Your task to perform on an android device: toggle show notifications on the lock screen Image 0: 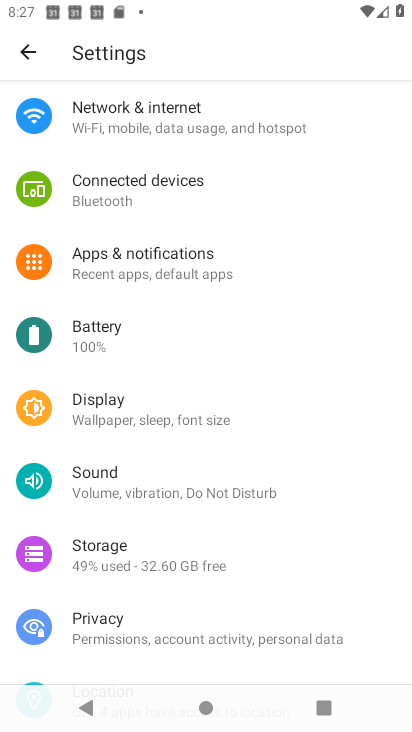
Step 0: click (169, 270)
Your task to perform on an android device: toggle show notifications on the lock screen Image 1: 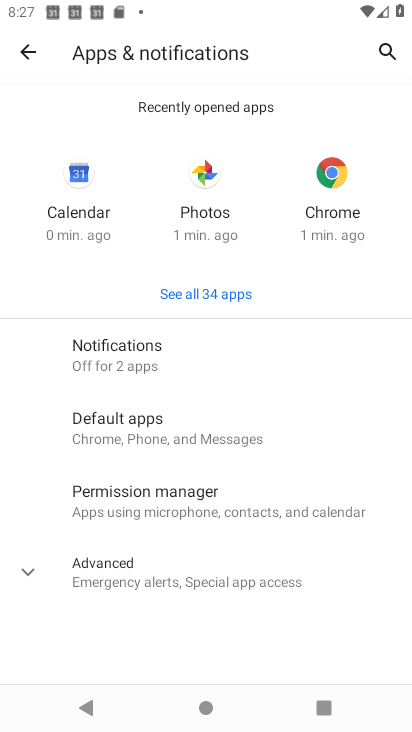
Step 1: click (143, 352)
Your task to perform on an android device: toggle show notifications on the lock screen Image 2: 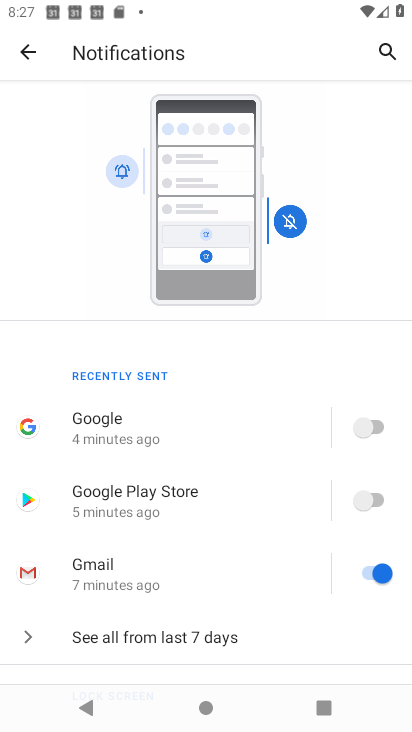
Step 2: drag from (245, 622) to (220, 275)
Your task to perform on an android device: toggle show notifications on the lock screen Image 3: 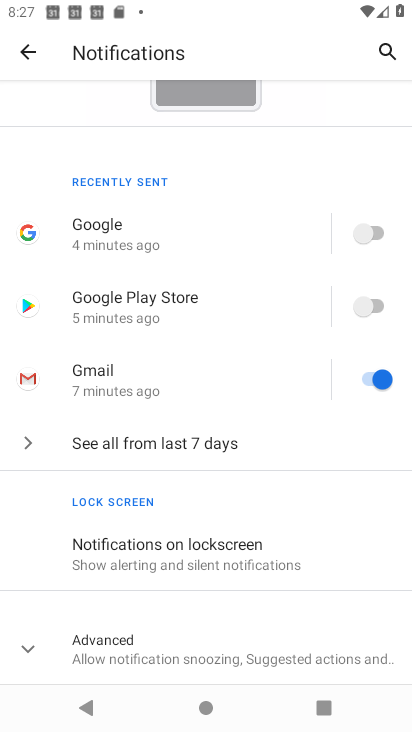
Step 3: click (213, 548)
Your task to perform on an android device: toggle show notifications on the lock screen Image 4: 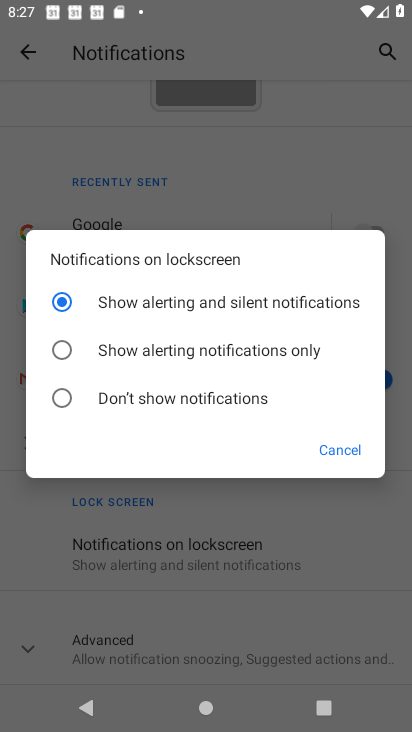
Step 4: click (165, 358)
Your task to perform on an android device: toggle show notifications on the lock screen Image 5: 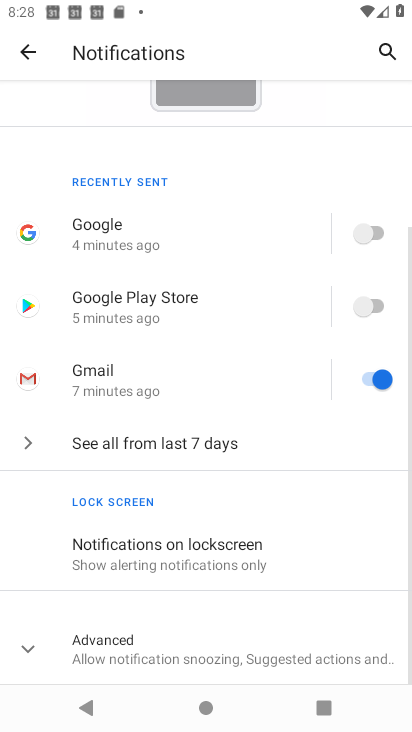
Step 5: task complete